Your task to perform on an android device: turn off javascript in the chrome app Image 0: 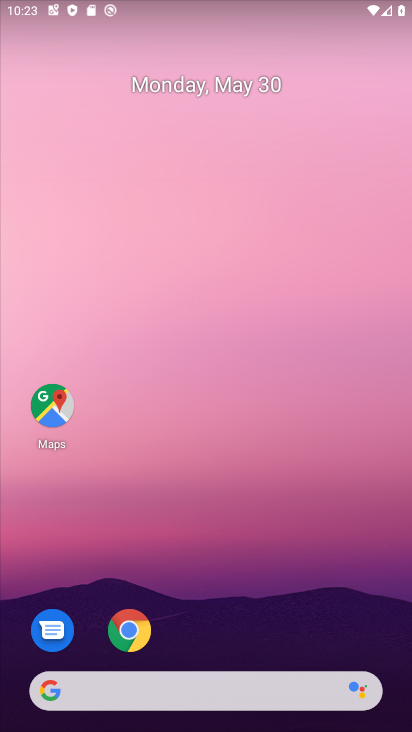
Step 0: click (129, 645)
Your task to perform on an android device: turn off javascript in the chrome app Image 1: 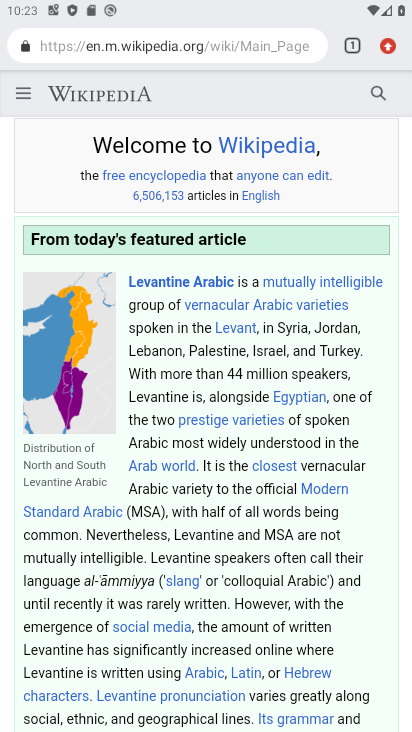
Step 1: drag from (384, 45) to (240, 601)
Your task to perform on an android device: turn off javascript in the chrome app Image 2: 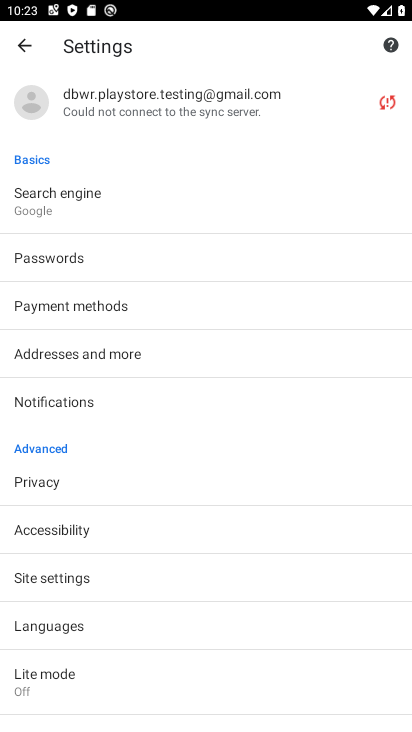
Step 2: click (130, 578)
Your task to perform on an android device: turn off javascript in the chrome app Image 3: 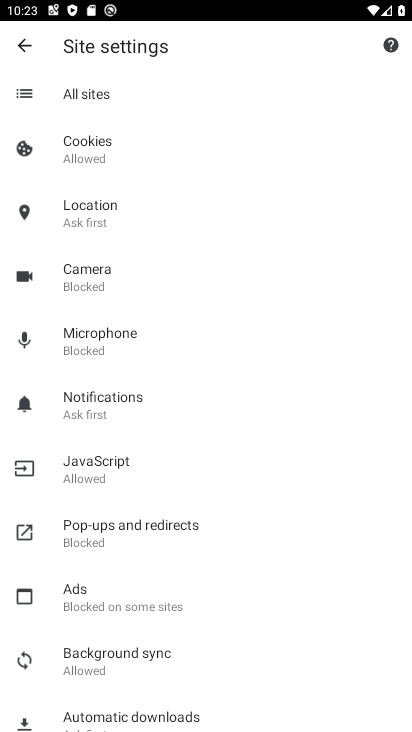
Step 3: click (186, 472)
Your task to perform on an android device: turn off javascript in the chrome app Image 4: 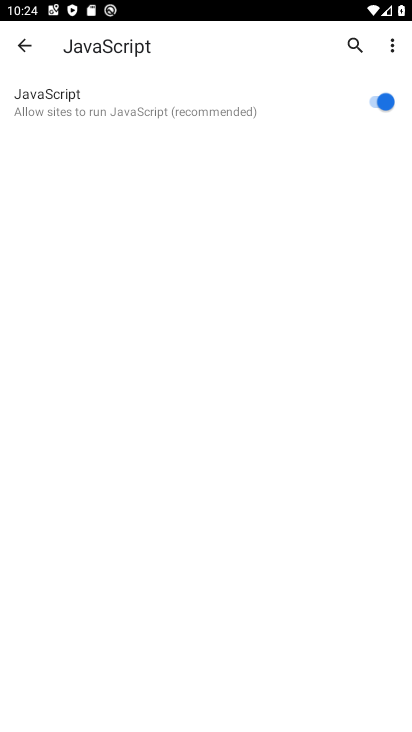
Step 4: click (371, 100)
Your task to perform on an android device: turn off javascript in the chrome app Image 5: 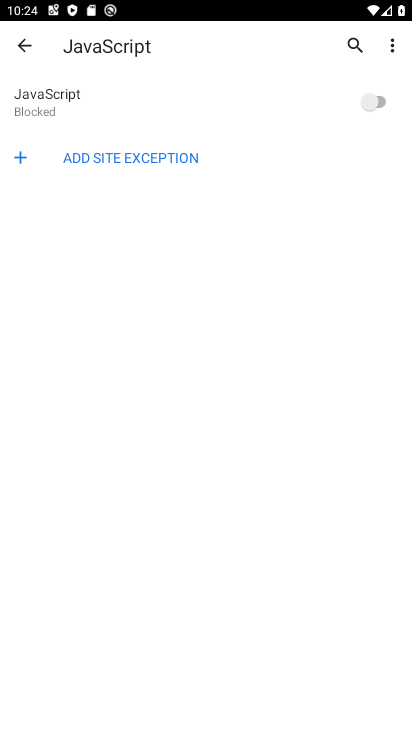
Step 5: task complete